Your task to perform on an android device: turn on airplane mode Image 0: 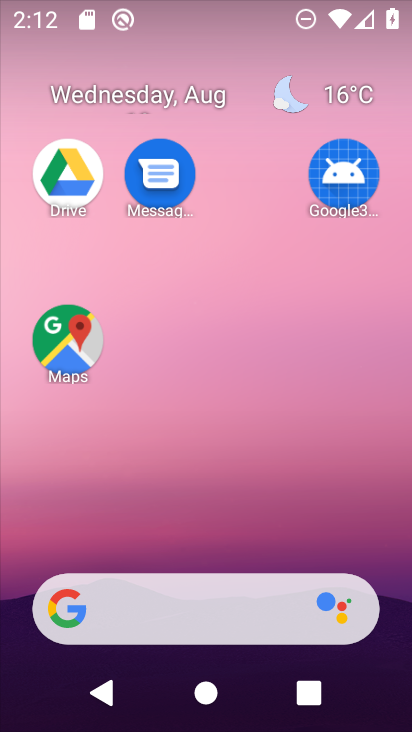
Step 0: drag from (234, 13) to (262, 509)
Your task to perform on an android device: turn on airplane mode Image 1: 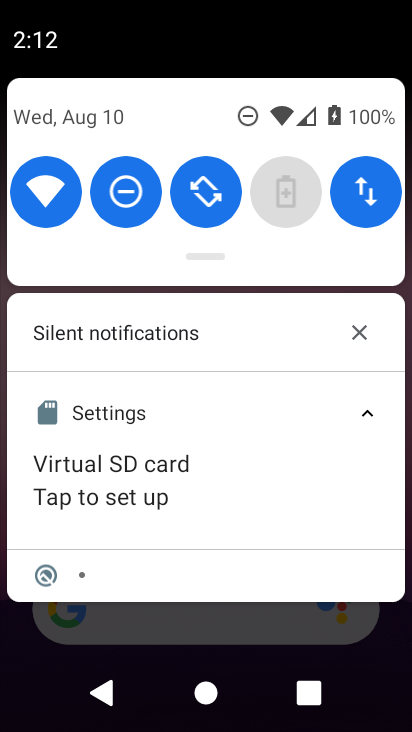
Step 1: drag from (239, 151) to (231, 604)
Your task to perform on an android device: turn on airplane mode Image 2: 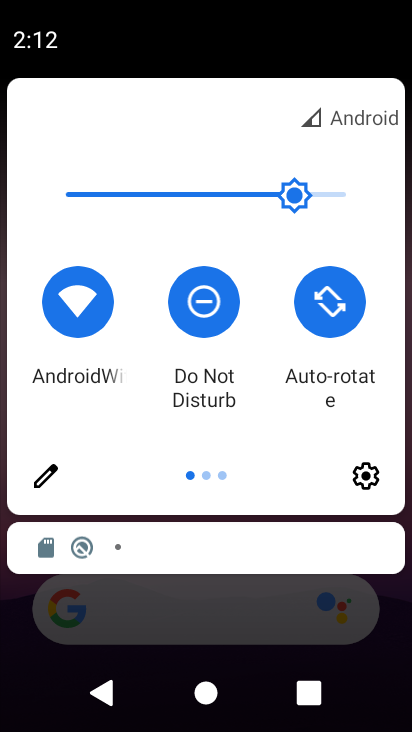
Step 2: drag from (379, 430) to (77, 379)
Your task to perform on an android device: turn on airplane mode Image 3: 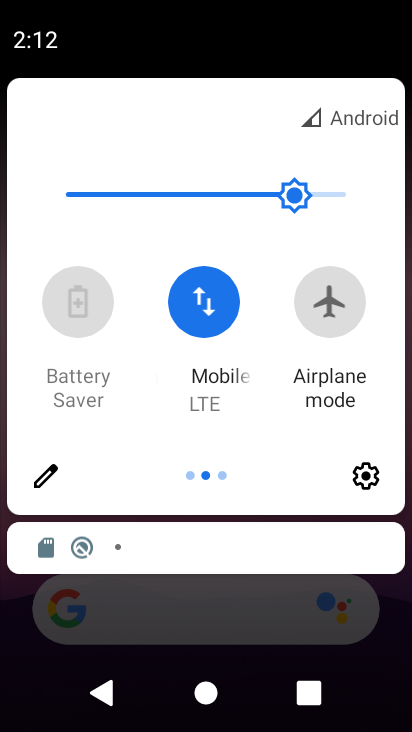
Step 3: click (348, 311)
Your task to perform on an android device: turn on airplane mode Image 4: 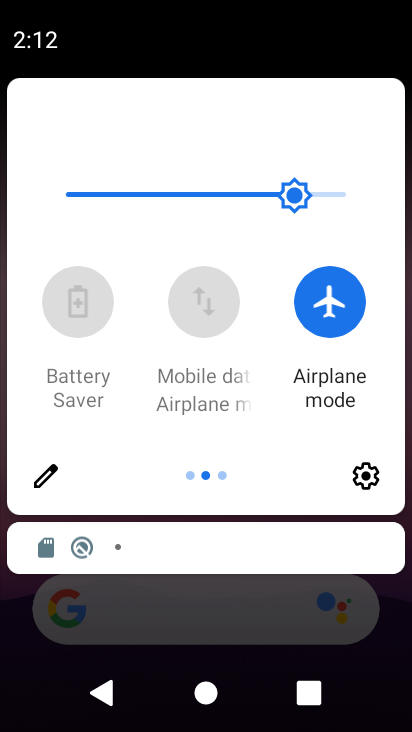
Step 4: task complete